Your task to perform on an android device: turn off notifications in google photos Image 0: 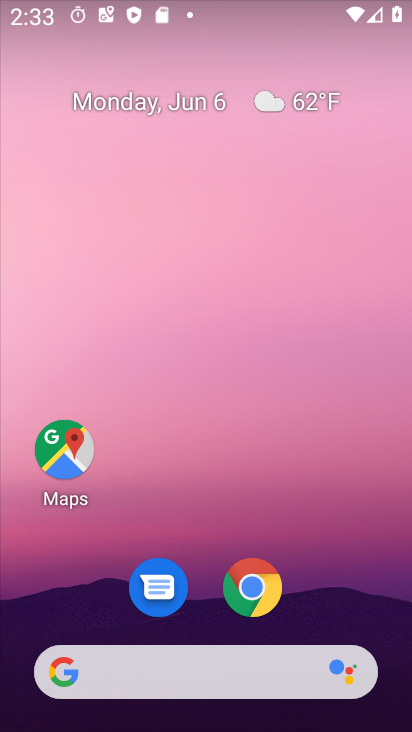
Step 0: drag from (347, 545) to (192, 16)
Your task to perform on an android device: turn off notifications in google photos Image 1: 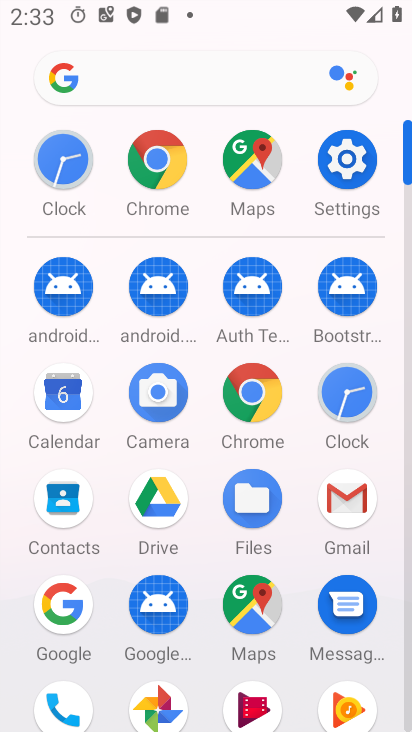
Step 1: drag from (23, 473) to (28, 236)
Your task to perform on an android device: turn off notifications in google photos Image 2: 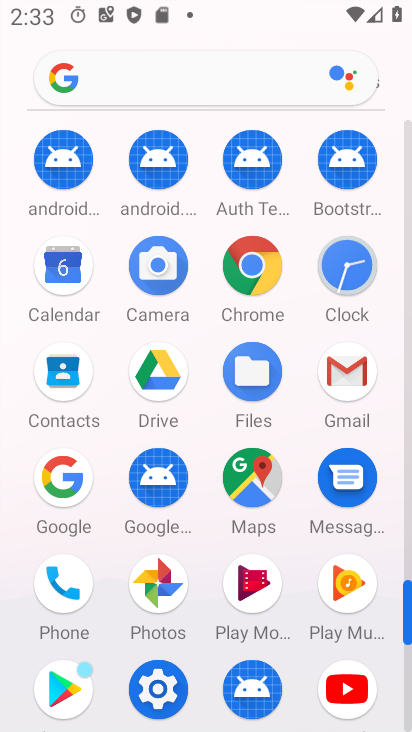
Step 2: click (161, 588)
Your task to perform on an android device: turn off notifications in google photos Image 3: 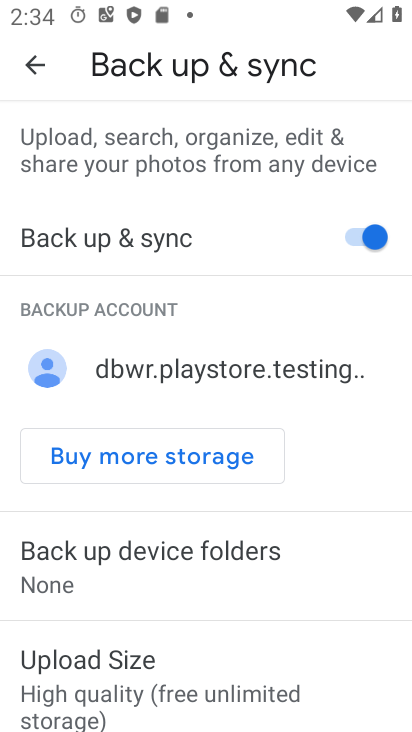
Step 3: drag from (268, 508) to (268, 222)
Your task to perform on an android device: turn off notifications in google photos Image 4: 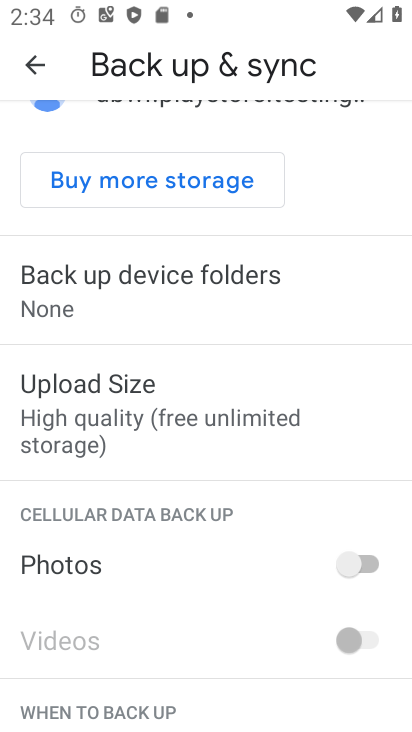
Step 4: drag from (222, 578) to (264, 207)
Your task to perform on an android device: turn off notifications in google photos Image 5: 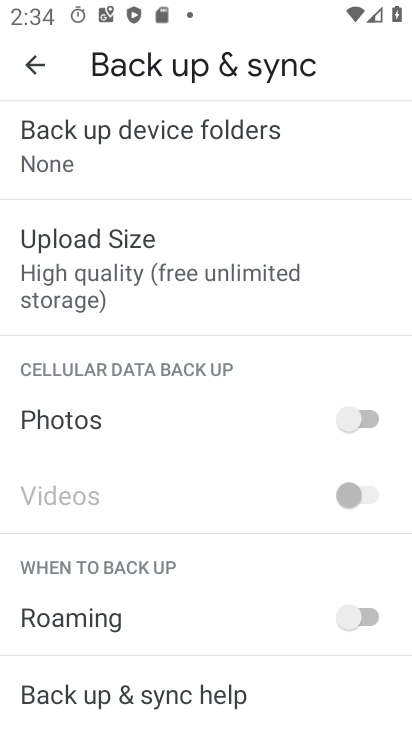
Step 5: drag from (218, 691) to (239, 224)
Your task to perform on an android device: turn off notifications in google photos Image 6: 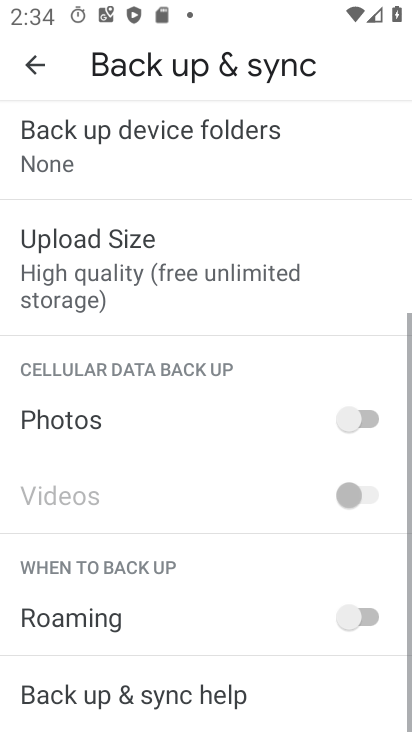
Step 6: drag from (209, 201) to (213, 598)
Your task to perform on an android device: turn off notifications in google photos Image 7: 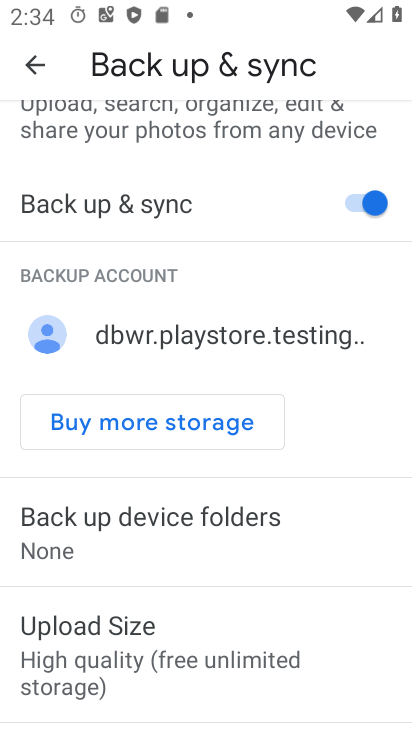
Step 7: drag from (246, 142) to (245, 594)
Your task to perform on an android device: turn off notifications in google photos Image 8: 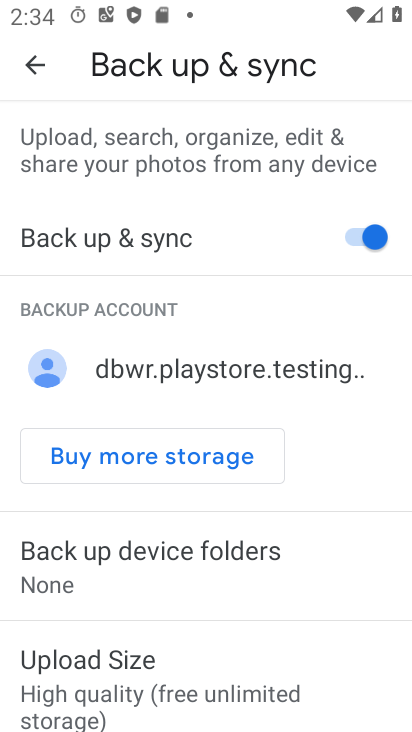
Step 8: drag from (247, 204) to (248, 444)
Your task to perform on an android device: turn off notifications in google photos Image 9: 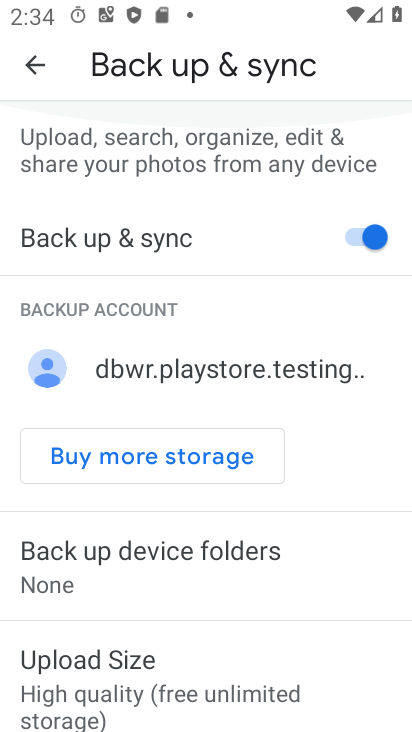
Step 9: drag from (232, 673) to (271, 236)
Your task to perform on an android device: turn off notifications in google photos Image 10: 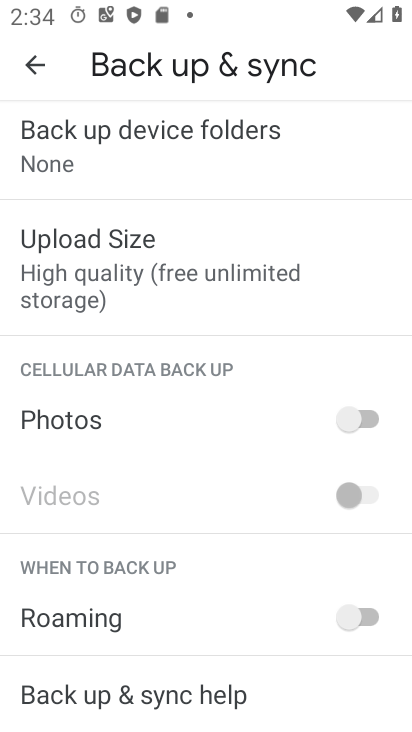
Step 10: drag from (248, 213) to (250, 633)
Your task to perform on an android device: turn off notifications in google photos Image 11: 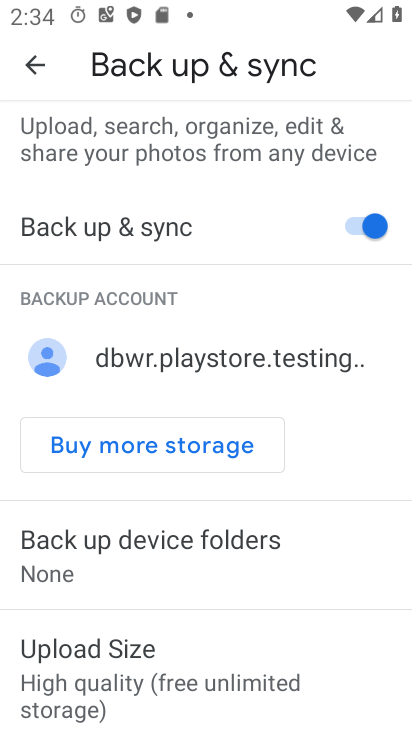
Step 11: drag from (241, 217) to (255, 651)
Your task to perform on an android device: turn off notifications in google photos Image 12: 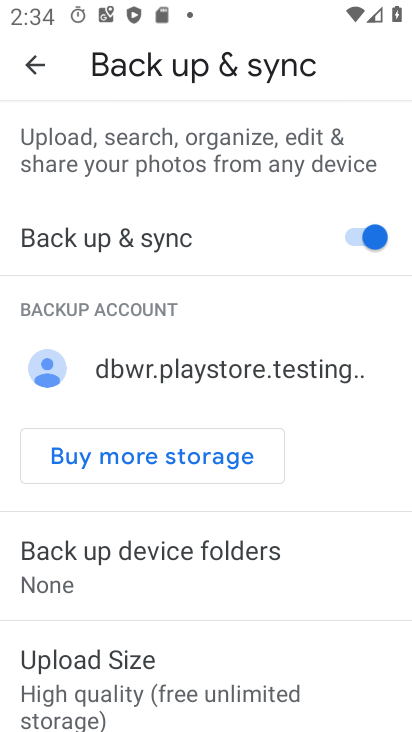
Step 12: drag from (231, 573) to (277, 134)
Your task to perform on an android device: turn off notifications in google photos Image 13: 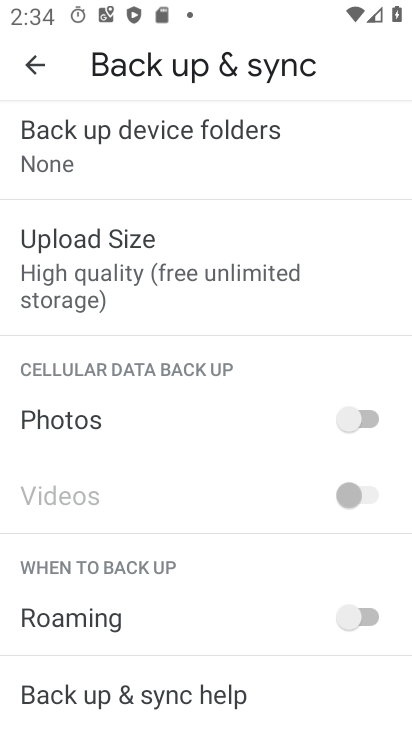
Step 13: drag from (184, 607) to (252, 146)
Your task to perform on an android device: turn off notifications in google photos Image 14: 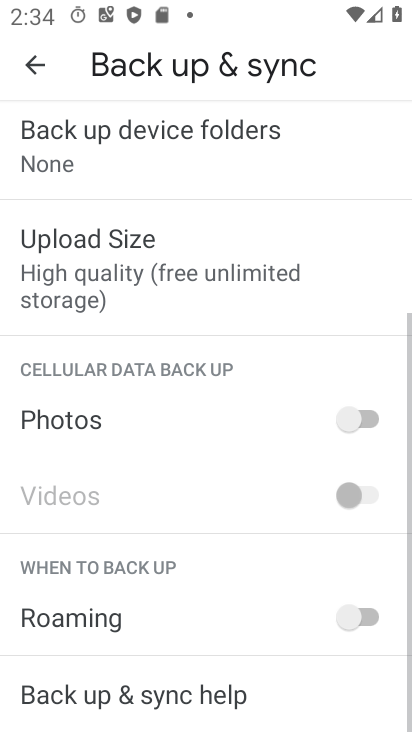
Step 14: drag from (216, 152) to (169, 503)
Your task to perform on an android device: turn off notifications in google photos Image 15: 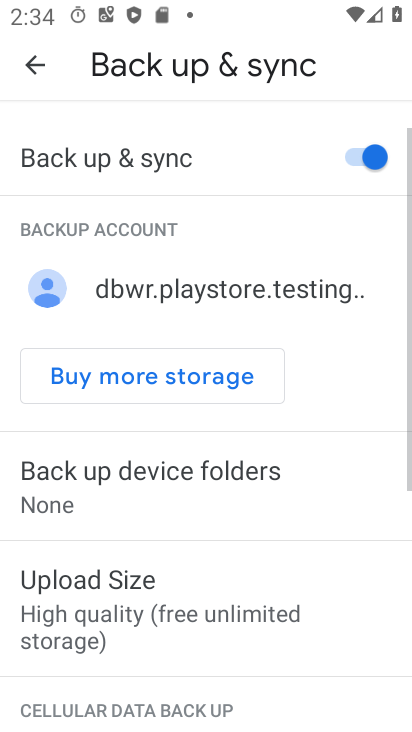
Step 15: click (40, 61)
Your task to perform on an android device: turn off notifications in google photos Image 16: 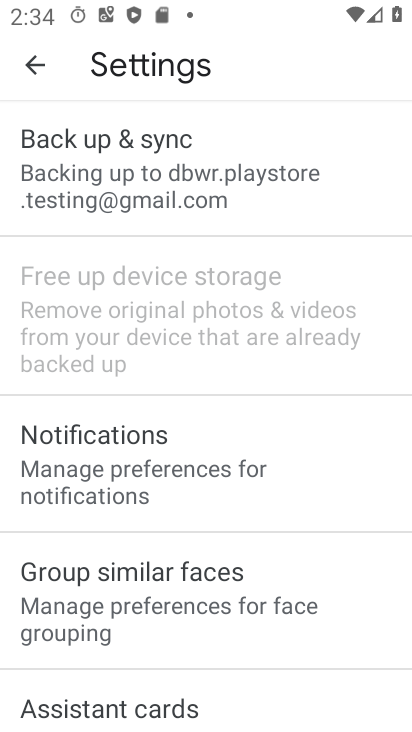
Step 16: click (223, 454)
Your task to perform on an android device: turn off notifications in google photos Image 17: 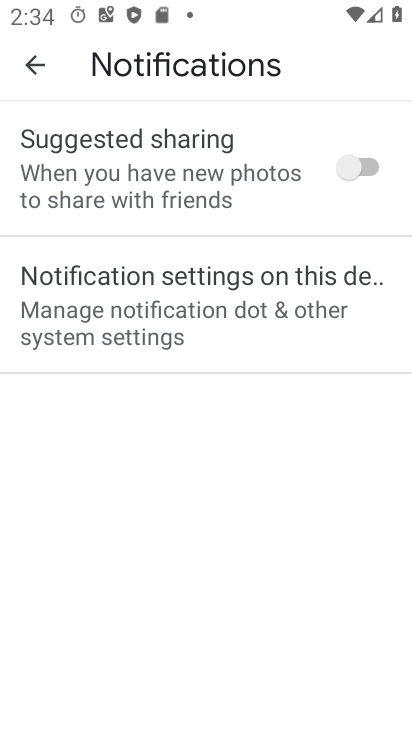
Step 17: click (223, 330)
Your task to perform on an android device: turn off notifications in google photos Image 18: 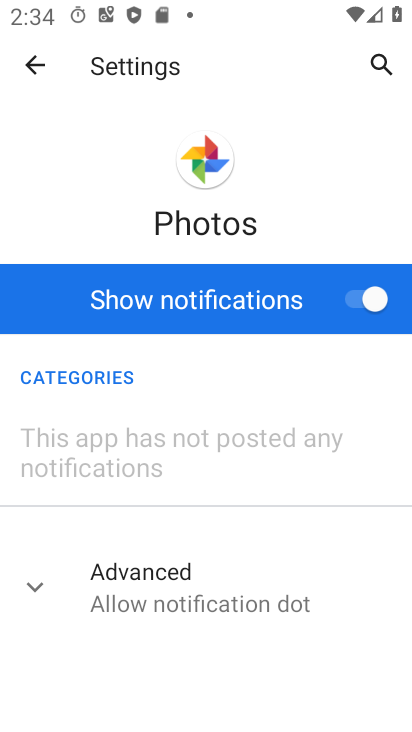
Step 18: click (371, 307)
Your task to perform on an android device: turn off notifications in google photos Image 19: 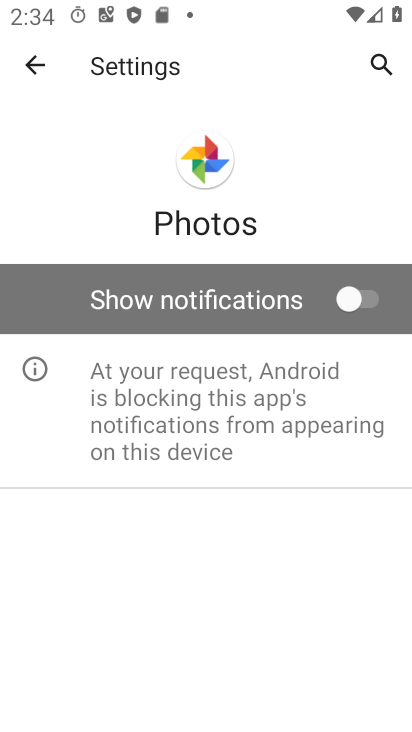
Step 19: task complete